Your task to perform on an android device: turn off sleep mode Image 0: 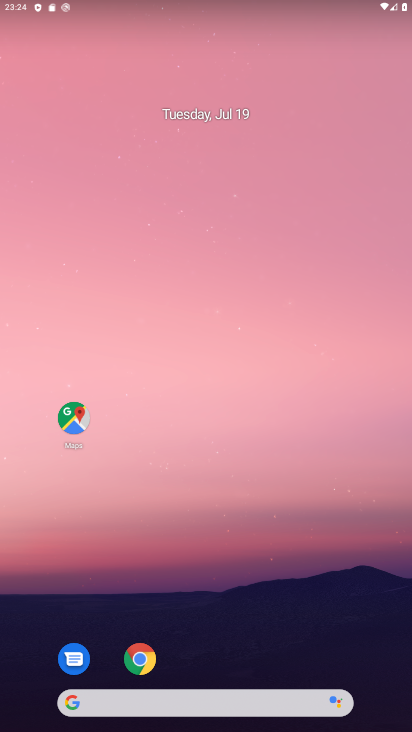
Step 0: drag from (314, 11) to (276, 554)
Your task to perform on an android device: turn off sleep mode Image 1: 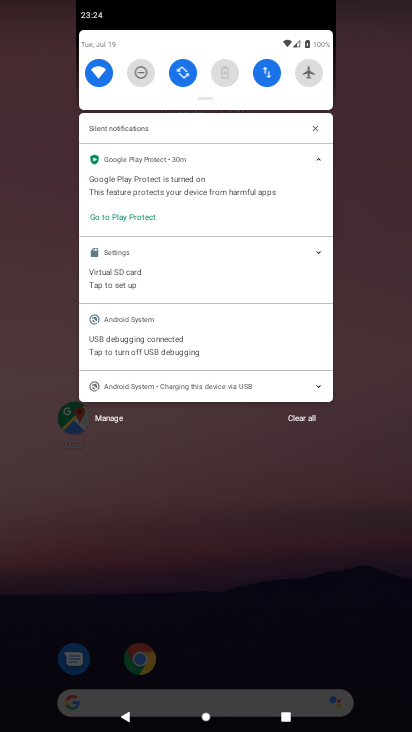
Step 1: drag from (204, 90) to (173, 385)
Your task to perform on an android device: turn off sleep mode Image 2: 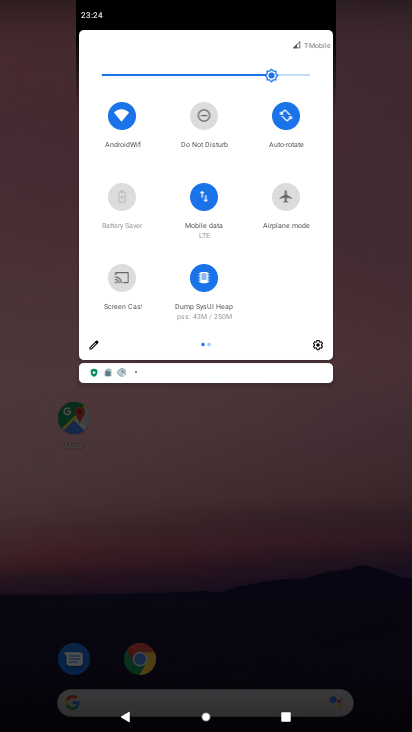
Step 2: click (96, 347)
Your task to perform on an android device: turn off sleep mode Image 3: 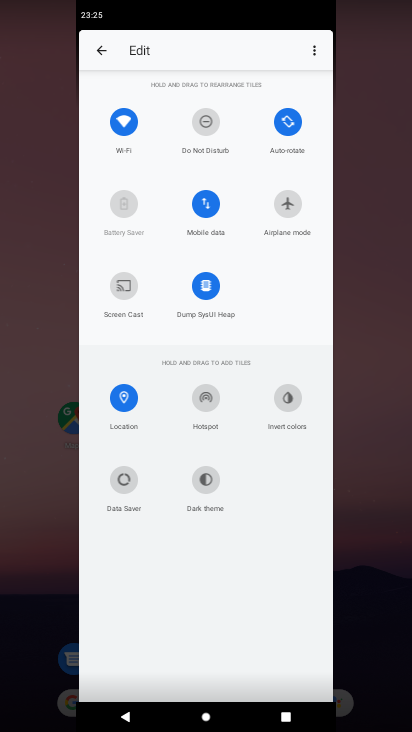
Step 3: task complete